Your task to perform on an android device: change the clock display to digital Image 0: 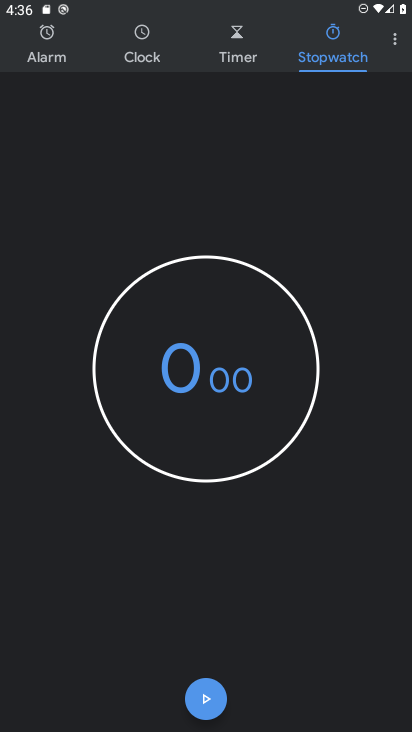
Step 0: press home button
Your task to perform on an android device: change the clock display to digital Image 1: 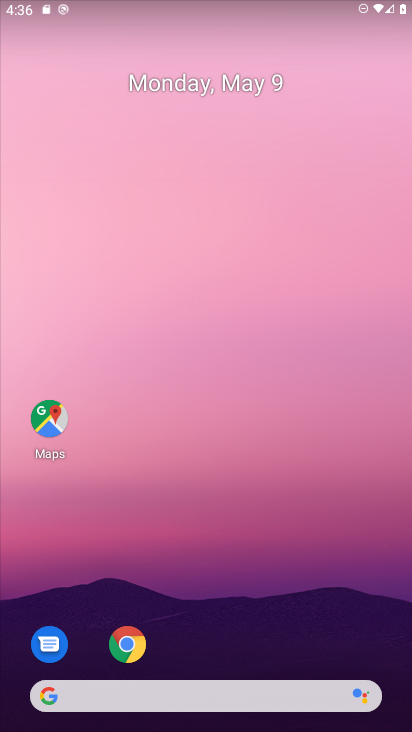
Step 1: drag from (220, 566) to (257, 126)
Your task to perform on an android device: change the clock display to digital Image 2: 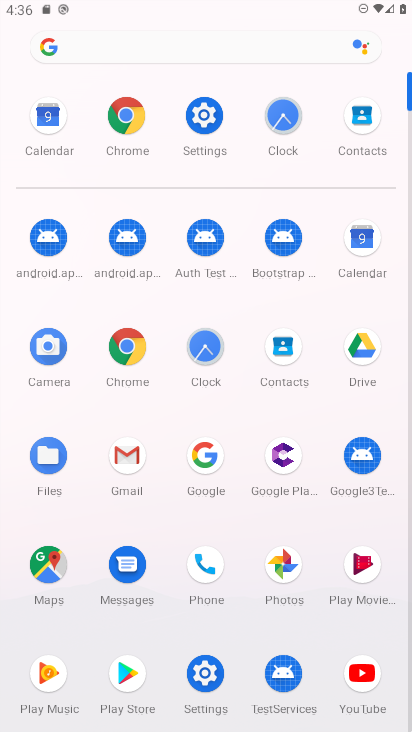
Step 2: click (209, 353)
Your task to perform on an android device: change the clock display to digital Image 3: 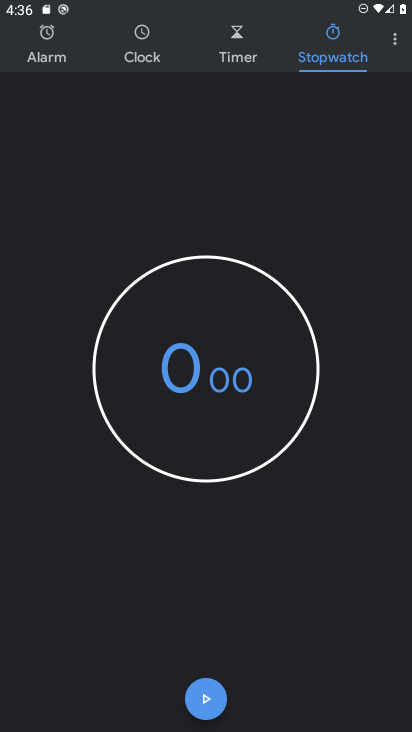
Step 3: click (394, 39)
Your task to perform on an android device: change the clock display to digital Image 4: 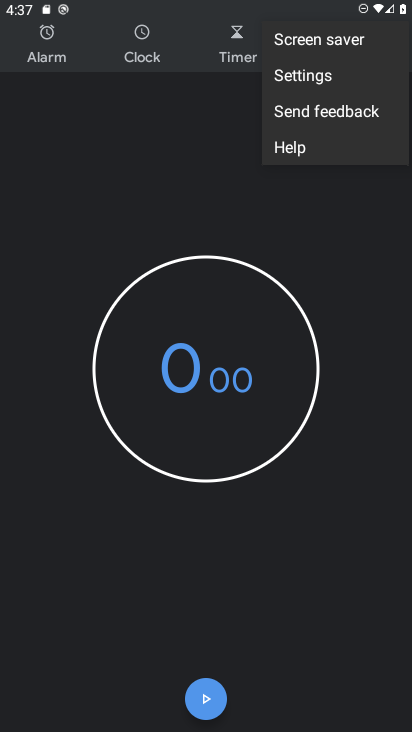
Step 4: click (305, 76)
Your task to perform on an android device: change the clock display to digital Image 5: 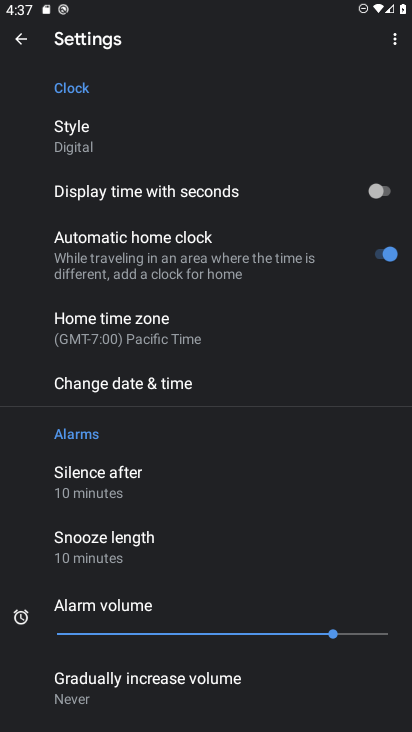
Step 5: click (143, 134)
Your task to perform on an android device: change the clock display to digital Image 6: 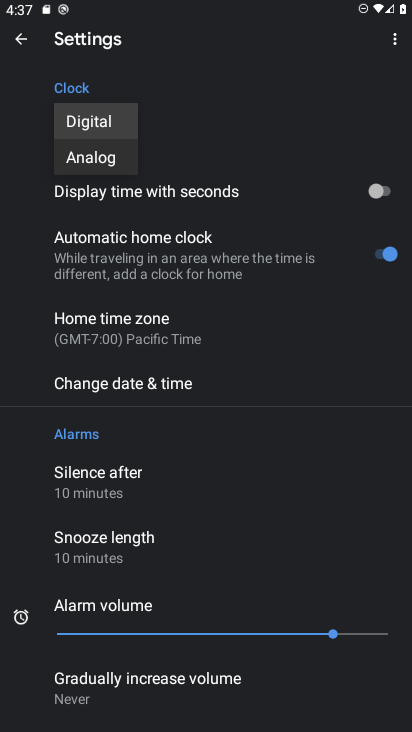
Step 6: click (101, 114)
Your task to perform on an android device: change the clock display to digital Image 7: 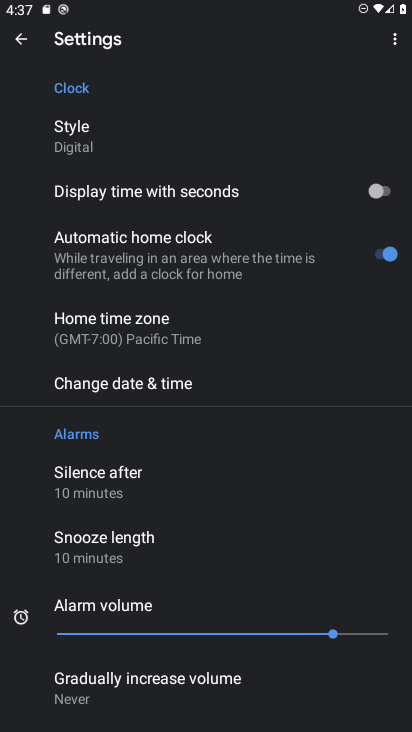
Step 7: task complete